Your task to perform on an android device: Open Google Maps Image 0: 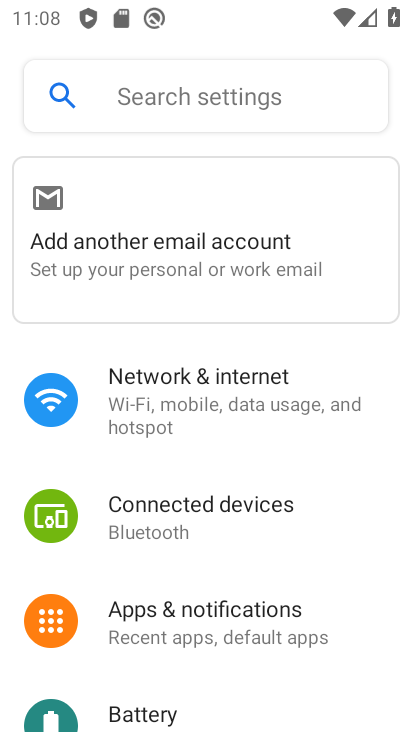
Step 0: press home button
Your task to perform on an android device: Open Google Maps Image 1: 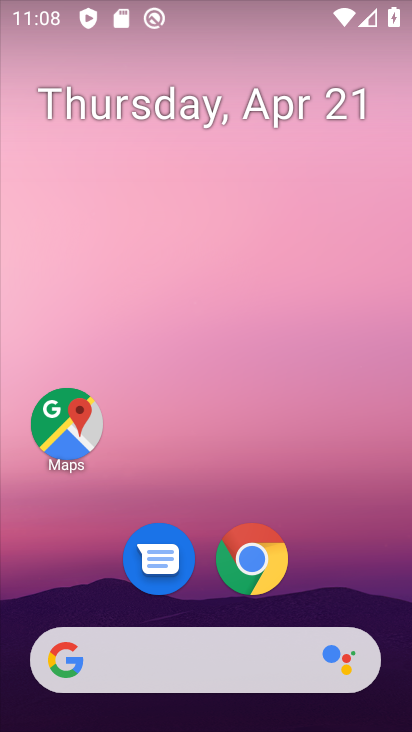
Step 1: click (64, 429)
Your task to perform on an android device: Open Google Maps Image 2: 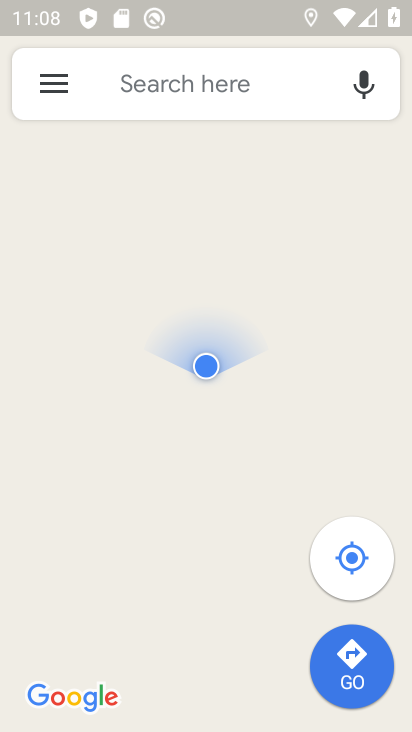
Step 2: task complete